Your task to perform on an android device: set the timer Image 0: 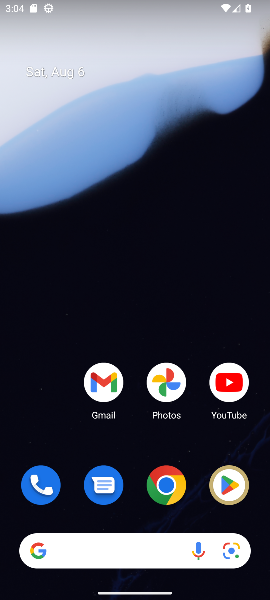
Step 0: drag from (137, 446) to (164, 0)
Your task to perform on an android device: set the timer Image 1: 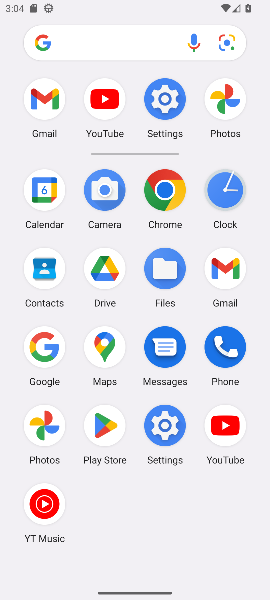
Step 1: click (222, 181)
Your task to perform on an android device: set the timer Image 2: 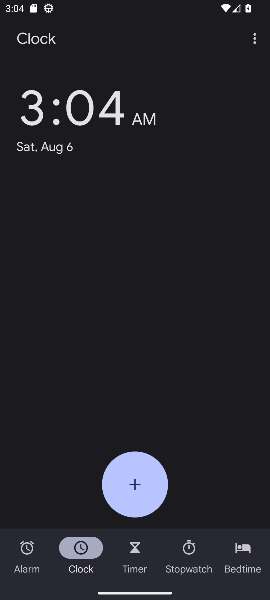
Step 2: click (131, 548)
Your task to perform on an android device: set the timer Image 3: 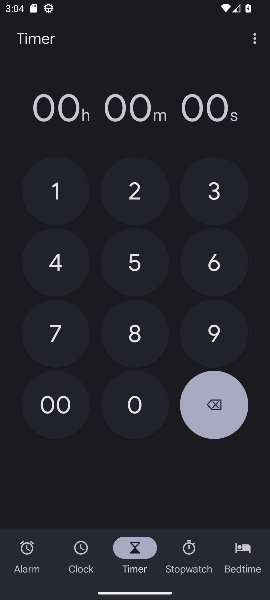
Step 3: click (215, 180)
Your task to perform on an android device: set the timer Image 4: 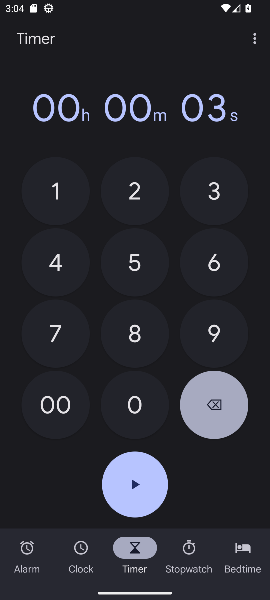
Step 4: click (127, 398)
Your task to perform on an android device: set the timer Image 5: 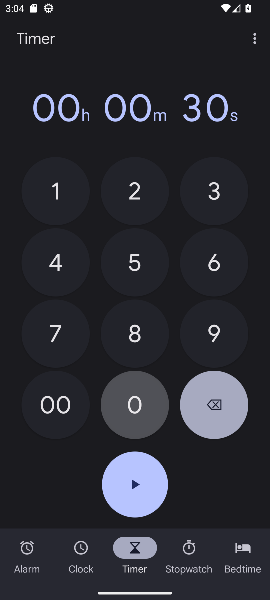
Step 5: click (59, 399)
Your task to perform on an android device: set the timer Image 6: 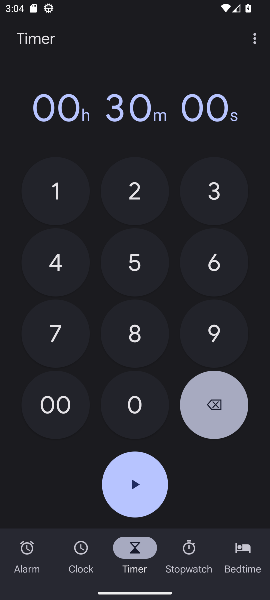
Step 6: click (133, 480)
Your task to perform on an android device: set the timer Image 7: 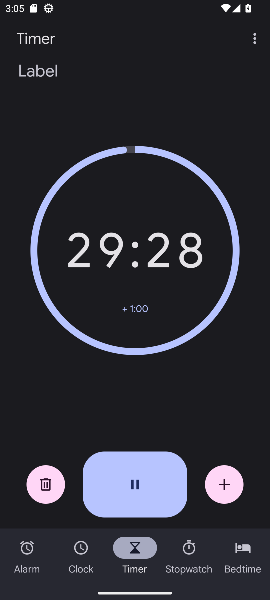
Step 7: task complete